Your task to perform on an android device: Open the map Image 0: 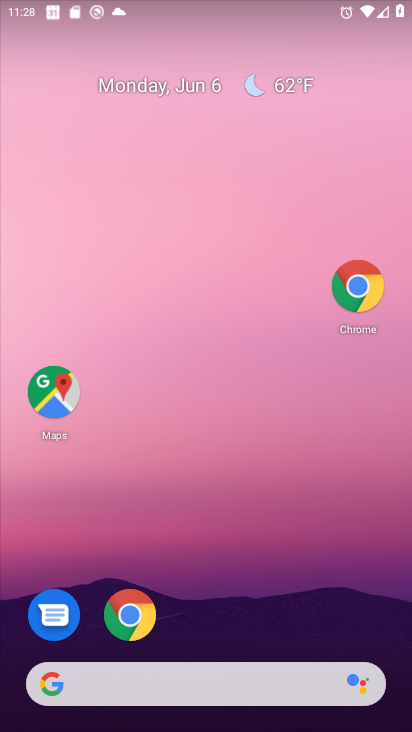
Step 0: drag from (188, 422) to (127, 159)
Your task to perform on an android device: Open the map Image 1: 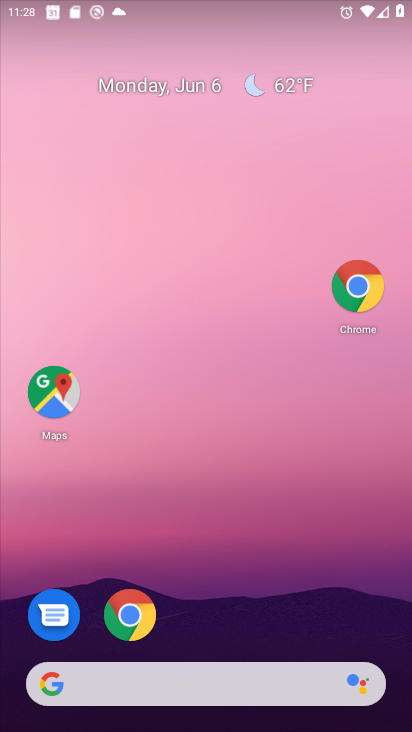
Step 1: drag from (244, 587) to (200, 155)
Your task to perform on an android device: Open the map Image 2: 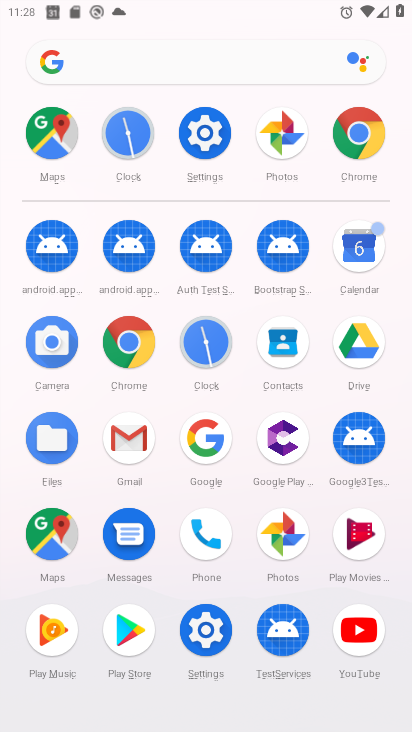
Step 2: click (53, 136)
Your task to perform on an android device: Open the map Image 3: 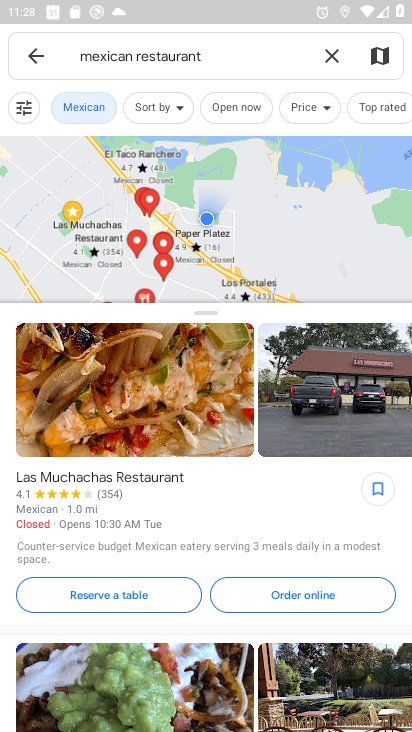
Step 3: click (32, 54)
Your task to perform on an android device: Open the map Image 4: 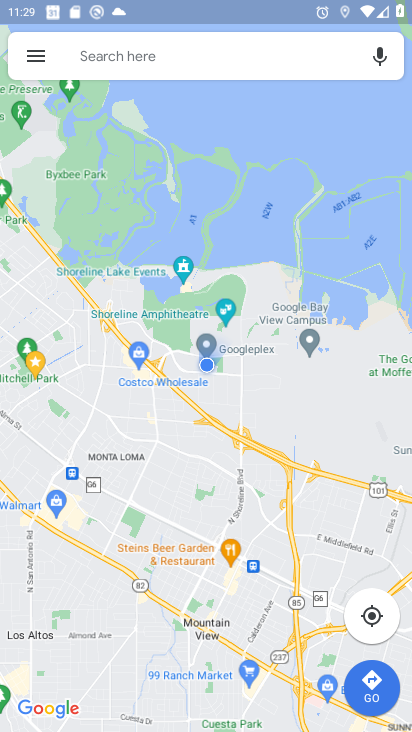
Step 4: task complete